Your task to perform on an android device: Search for "asus rog" on target, select the first entry, and add it to the cart. Image 0: 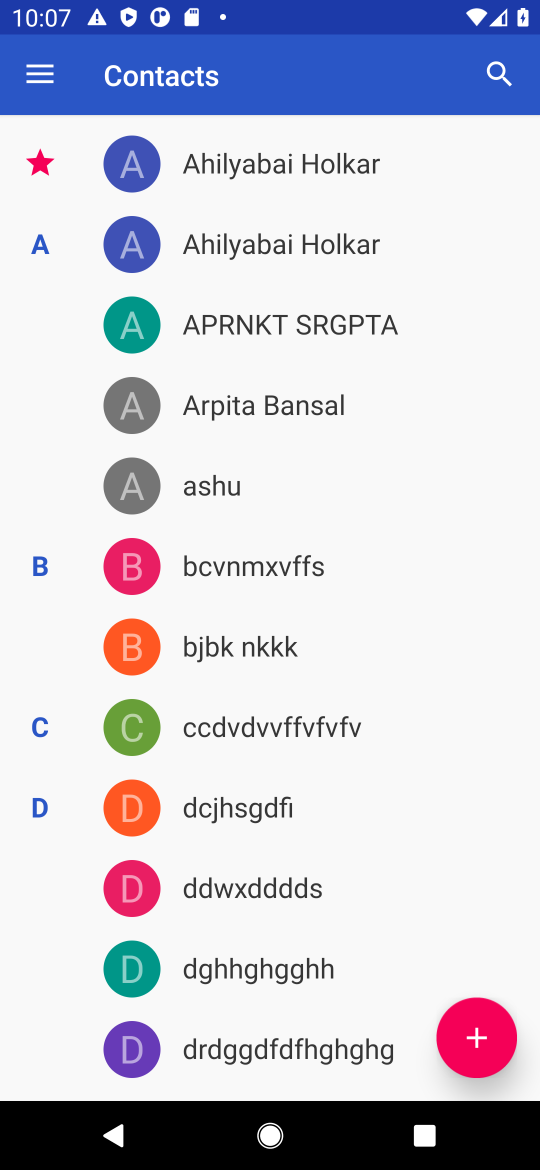
Step 0: press home button
Your task to perform on an android device: Search for "asus rog" on target, select the first entry, and add it to the cart. Image 1: 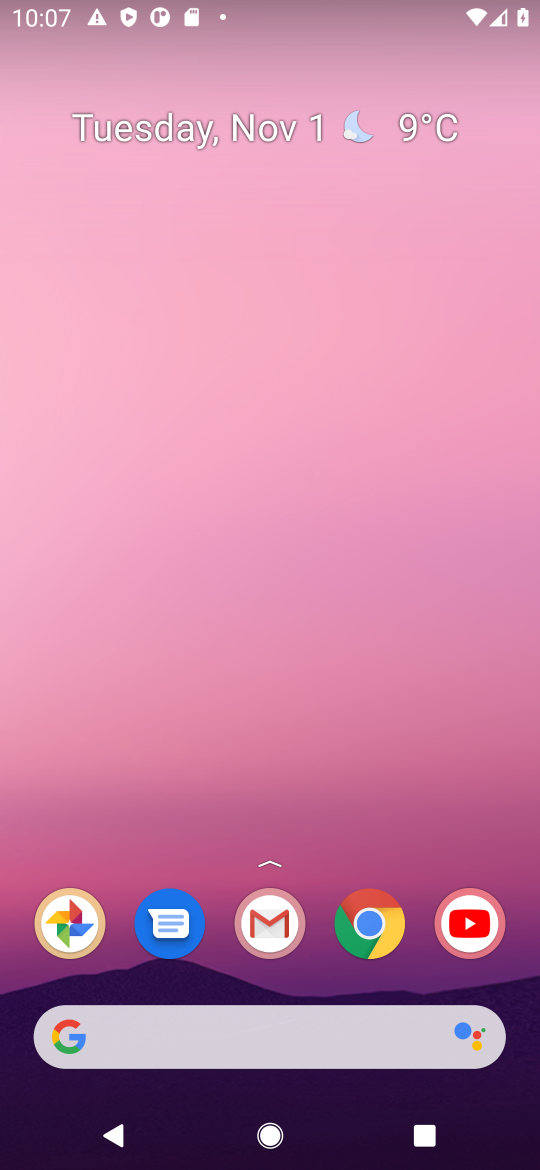
Step 1: drag from (321, 990) to (396, 87)
Your task to perform on an android device: Search for "asus rog" on target, select the first entry, and add it to the cart. Image 2: 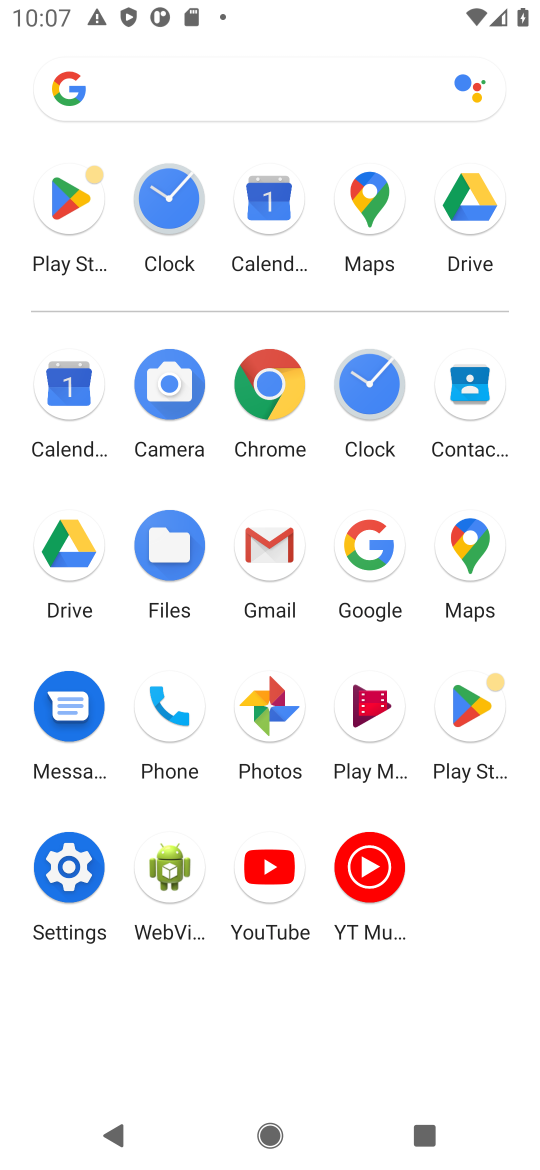
Step 2: click (269, 389)
Your task to perform on an android device: Search for "asus rog" on target, select the first entry, and add it to the cart. Image 3: 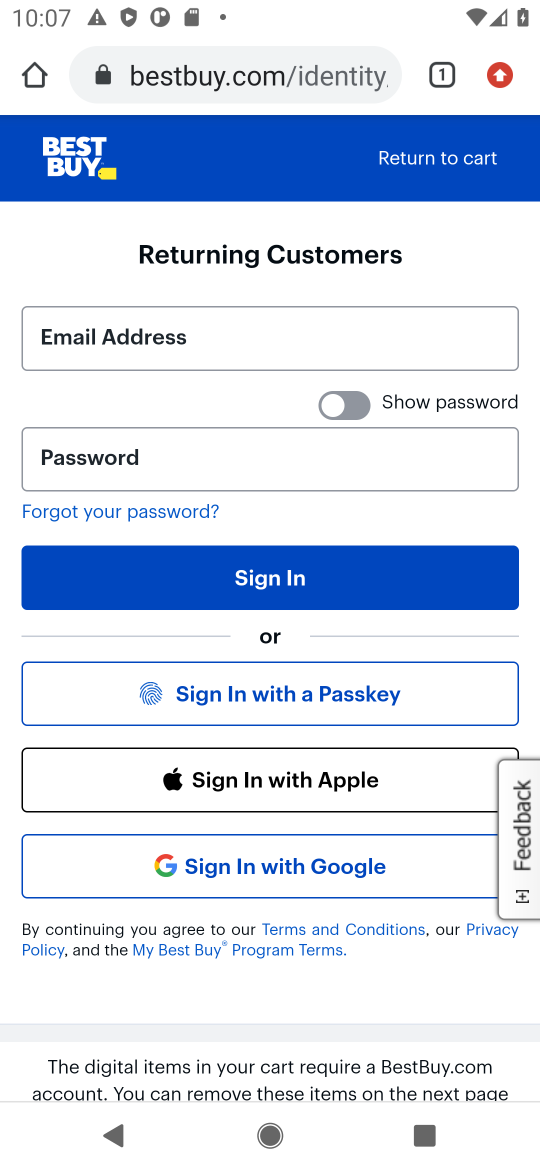
Step 3: click (311, 73)
Your task to perform on an android device: Search for "asus rog" on target, select the first entry, and add it to the cart. Image 4: 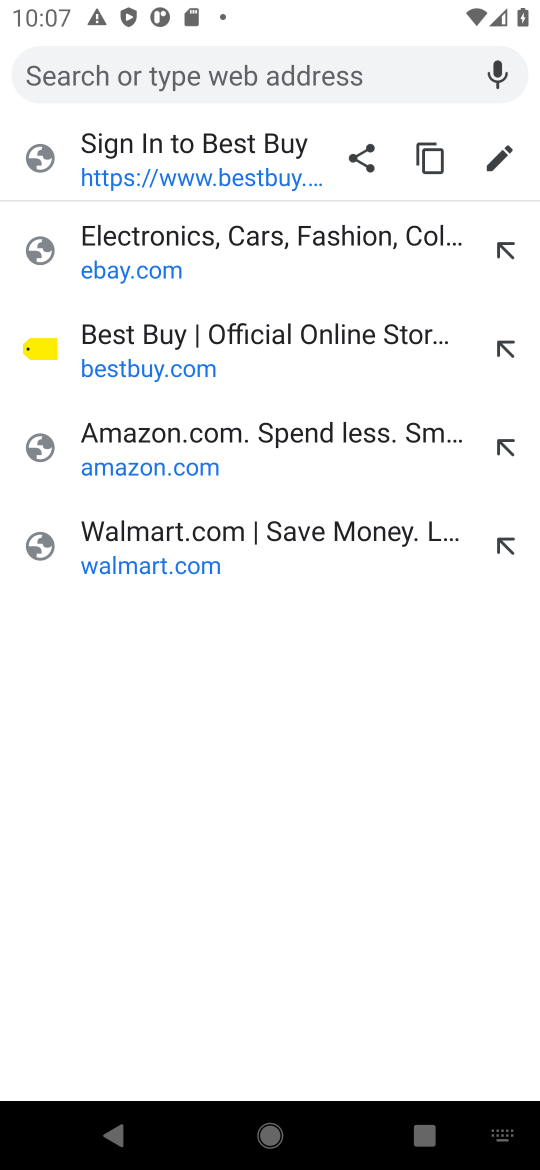
Step 4: type "target.com"
Your task to perform on an android device: Search for "asus rog" on target, select the first entry, and add it to the cart. Image 5: 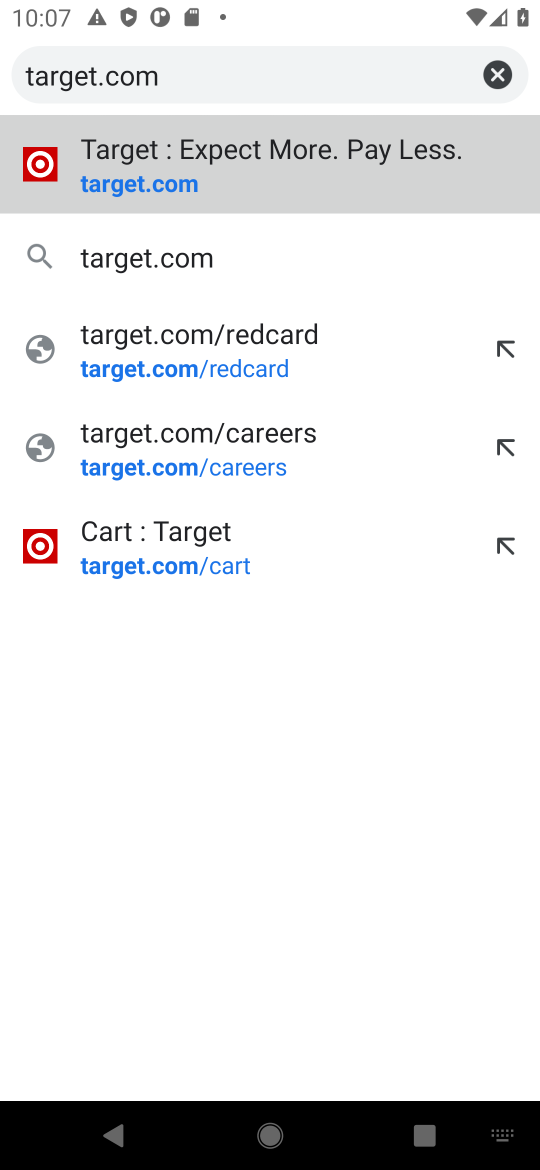
Step 5: press enter
Your task to perform on an android device: Search for "asus rog" on target, select the first entry, and add it to the cart. Image 6: 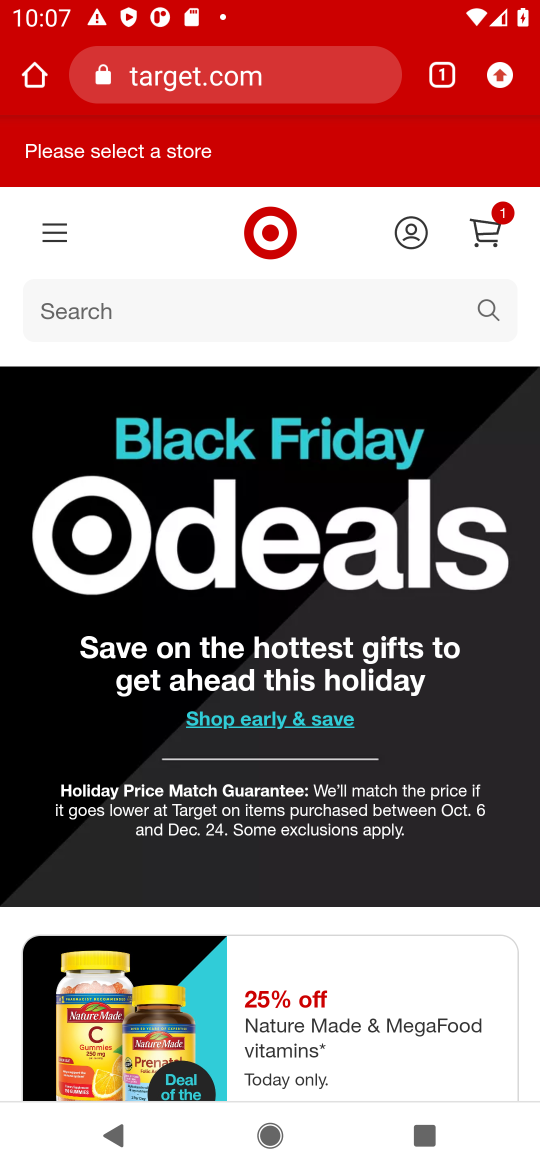
Step 6: drag from (276, 980) to (179, 912)
Your task to perform on an android device: Search for "asus rog" on target, select the first entry, and add it to the cart. Image 7: 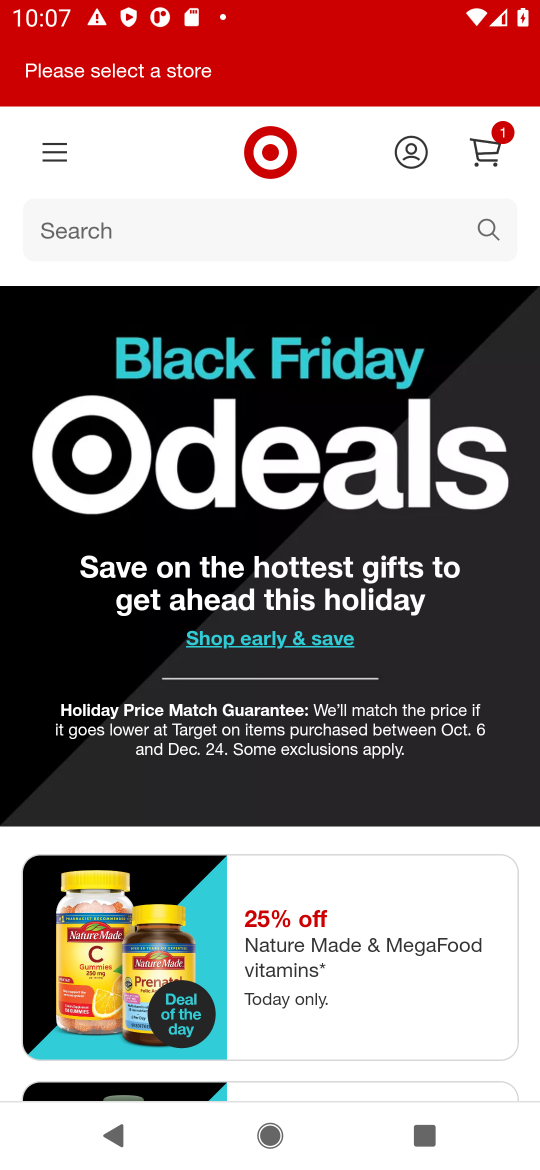
Step 7: click (210, 235)
Your task to perform on an android device: Search for "asus rog" on target, select the first entry, and add it to the cart. Image 8: 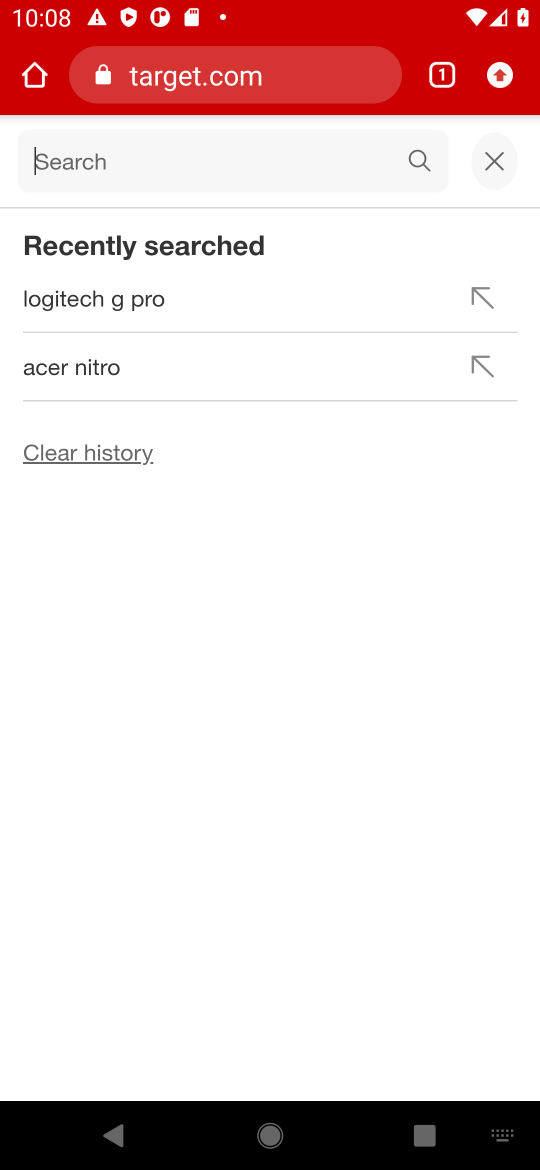
Step 8: type "asus rog"
Your task to perform on an android device: Search for "asus rog" on target, select the first entry, and add it to the cart. Image 9: 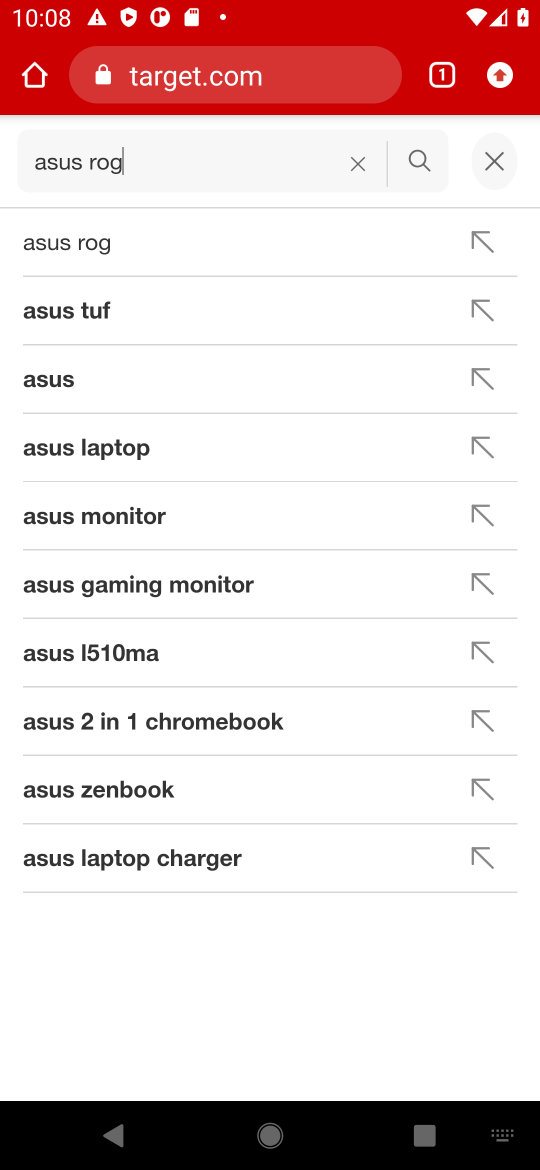
Step 9: press enter
Your task to perform on an android device: Search for "asus rog" on target, select the first entry, and add it to the cart. Image 10: 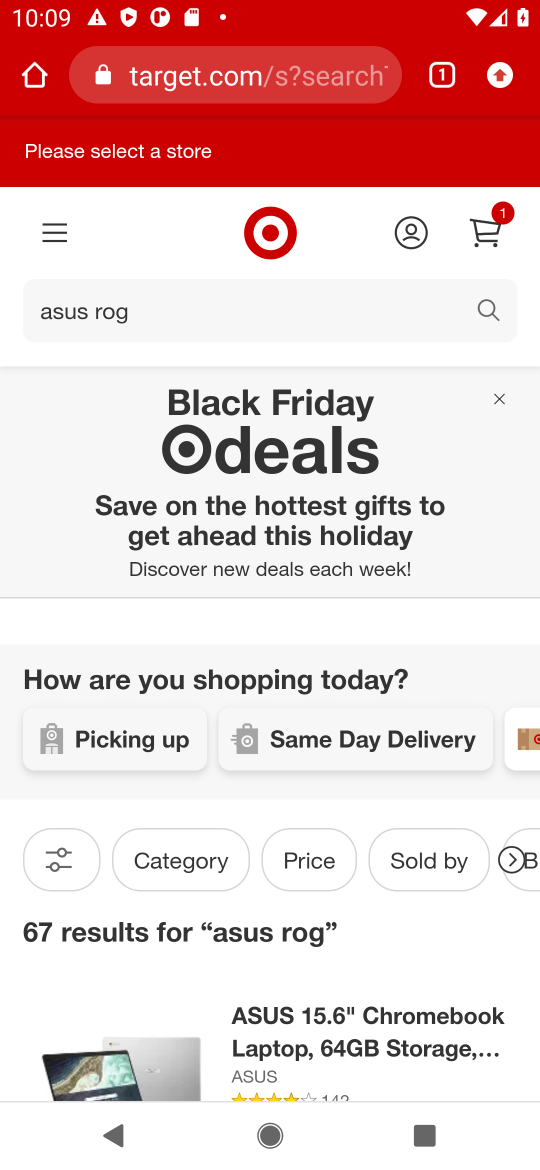
Step 10: drag from (341, 1011) to (293, 371)
Your task to perform on an android device: Search for "asus rog" on target, select the first entry, and add it to the cart. Image 11: 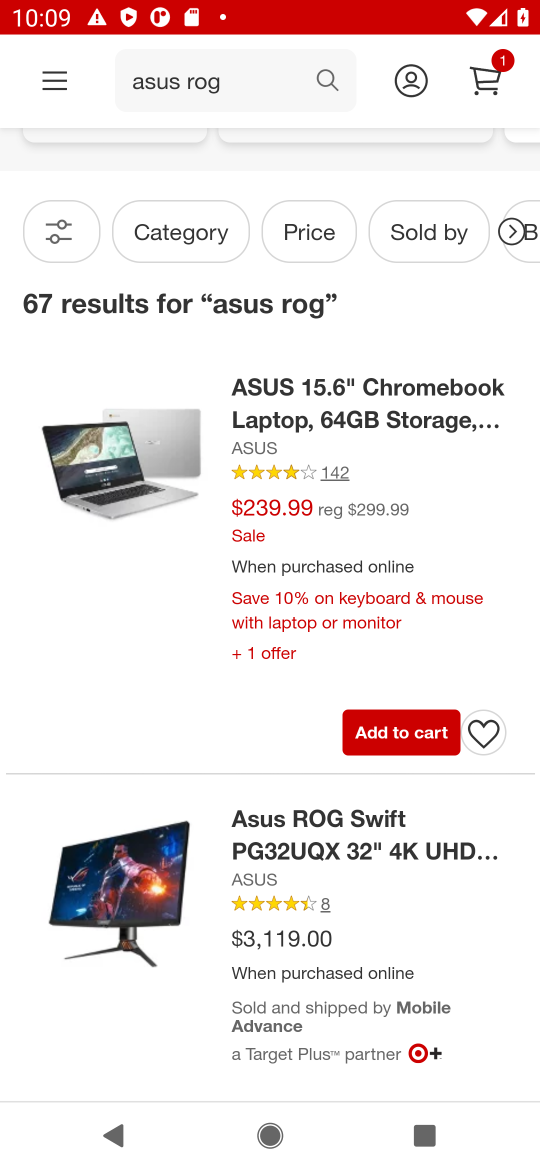
Step 11: drag from (272, 918) to (295, 699)
Your task to perform on an android device: Search for "asus rog" on target, select the first entry, and add it to the cart. Image 12: 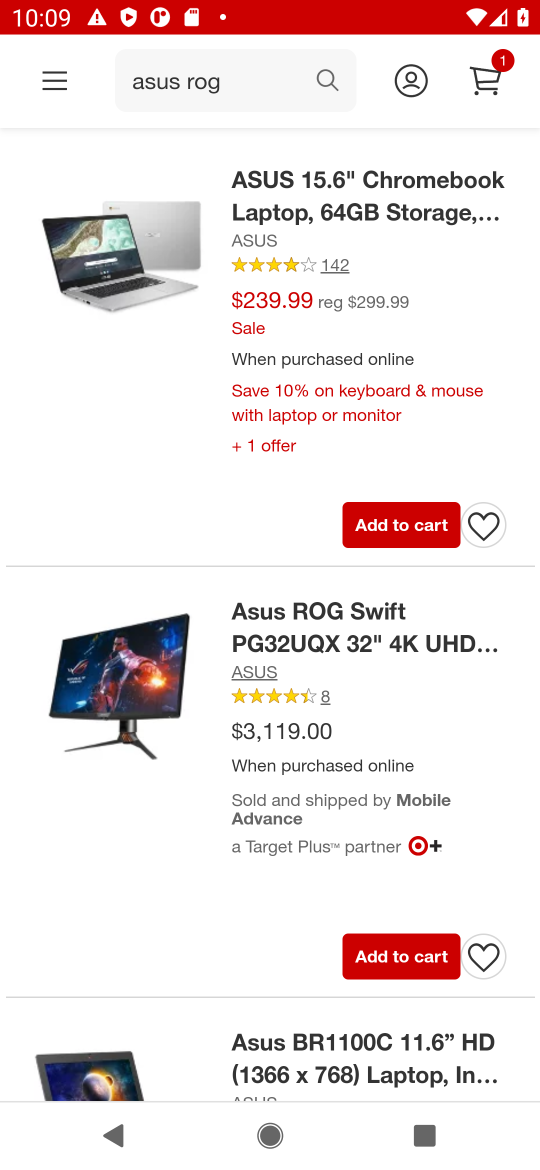
Step 12: click (152, 787)
Your task to perform on an android device: Search for "asus rog" on target, select the first entry, and add it to the cart. Image 13: 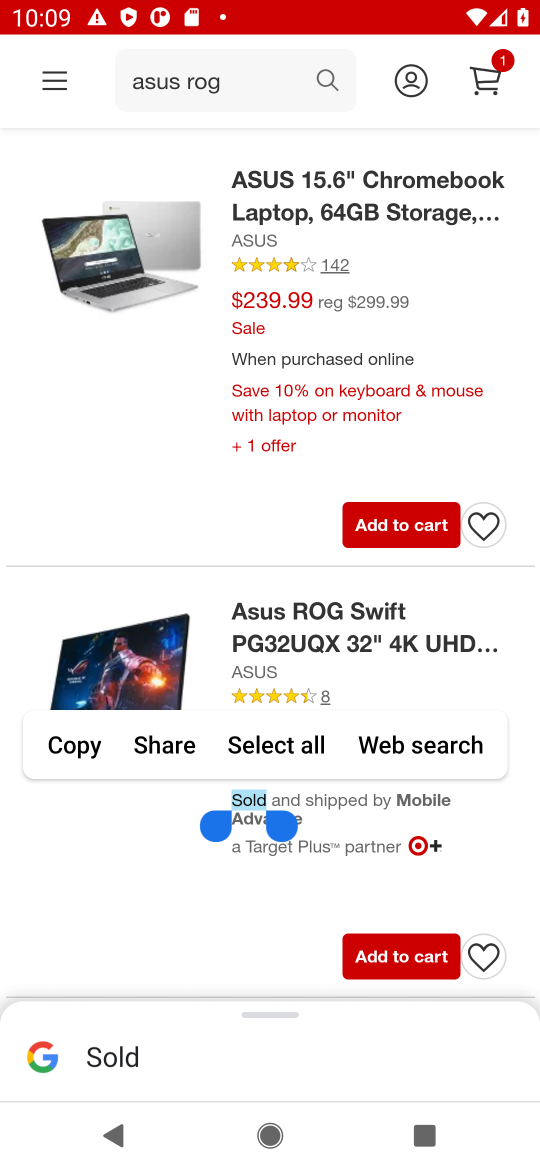
Step 13: click (413, 962)
Your task to perform on an android device: Search for "asus rog" on target, select the first entry, and add it to the cart. Image 14: 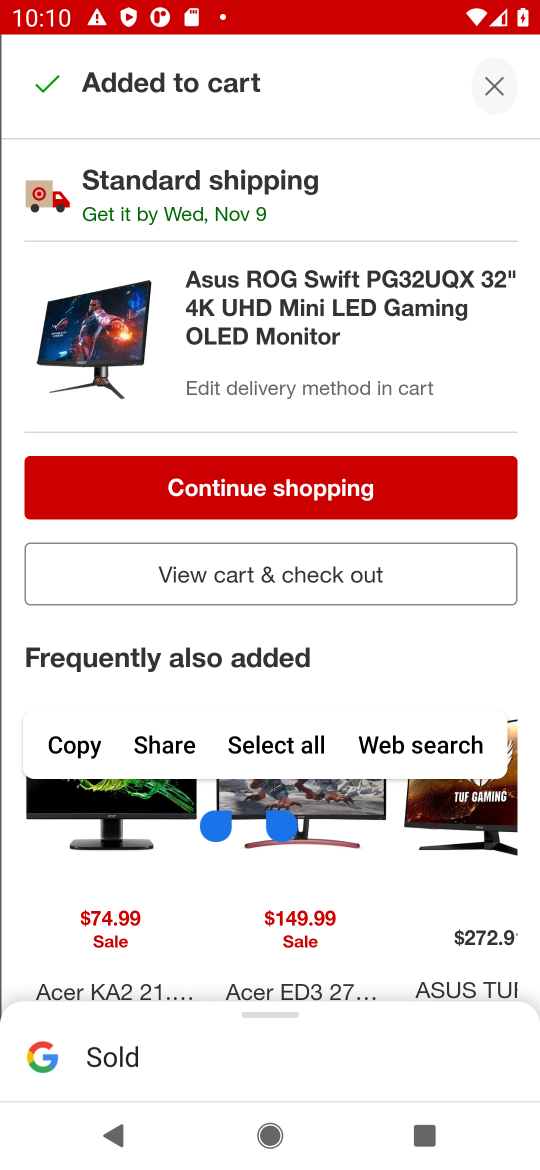
Step 14: task complete